Your task to perform on an android device: find which apps use the phone's location Image 0: 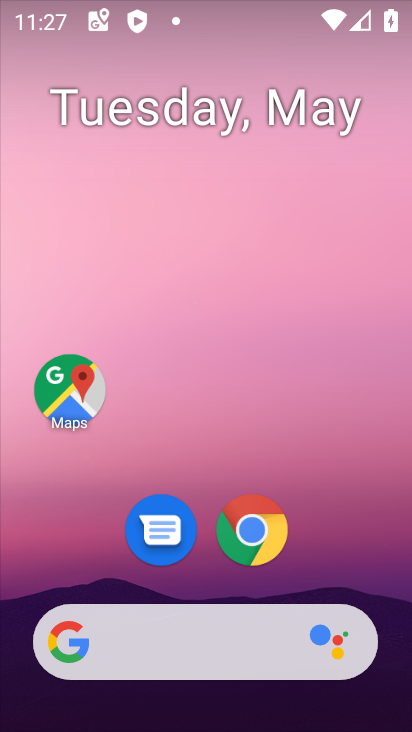
Step 0: drag from (208, 438) to (245, 173)
Your task to perform on an android device: find which apps use the phone's location Image 1: 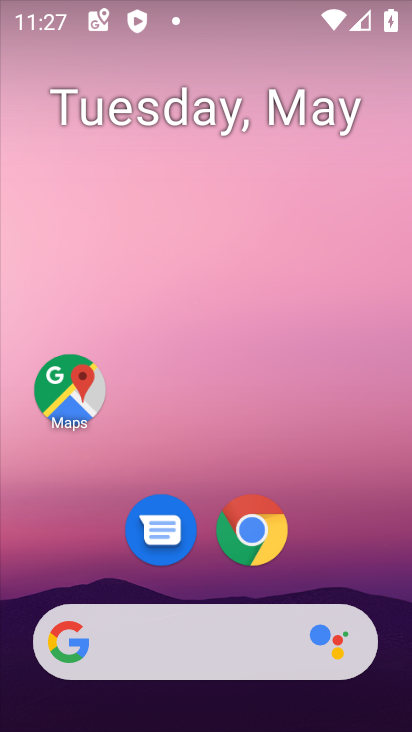
Step 1: drag from (211, 589) to (214, 129)
Your task to perform on an android device: find which apps use the phone's location Image 2: 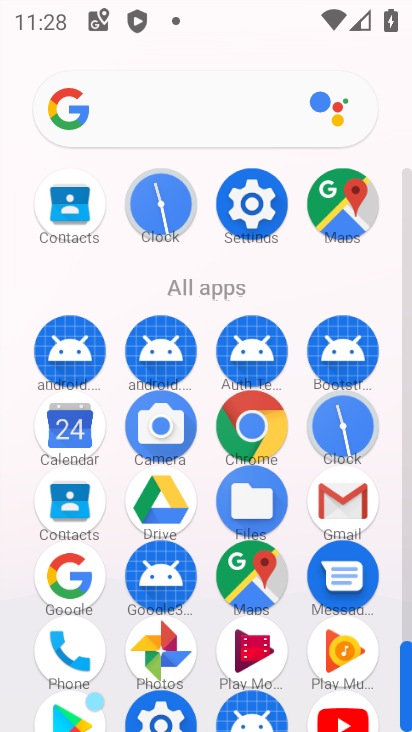
Step 2: click (254, 200)
Your task to perform on an android device: find which apps use the phone's location Image 3: 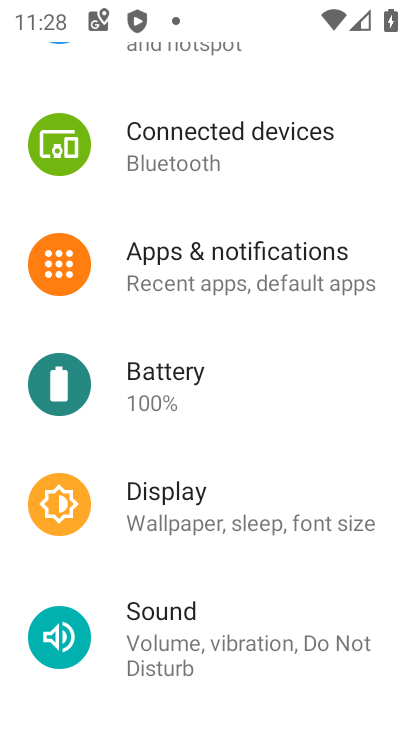
Step 3: drag from (223, 210) to (258, 120)
Your task to perform on an android device: find which apps use the phone's location Image 4: 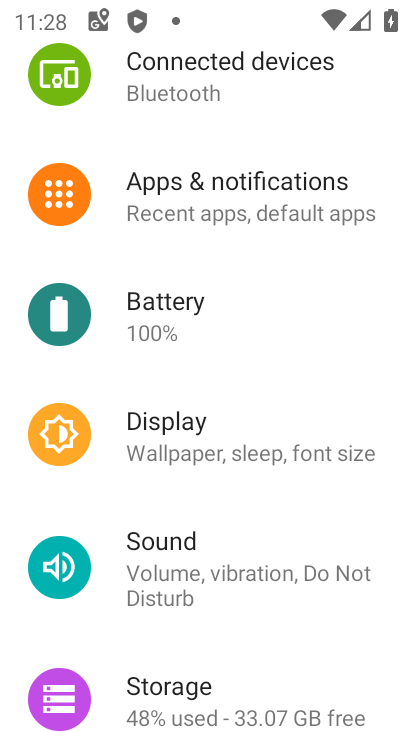
Step 4: drag from (222, 620) to (352, 226)
Your task to perform on an android device: find which apps use the phone's location Image 5: 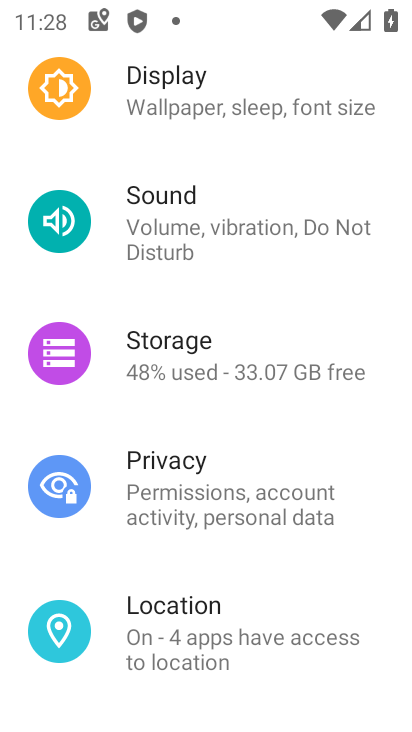
Step 5: click (180, 621)
Your task to perform on an android device: find which apps use the phone's location Image 6: 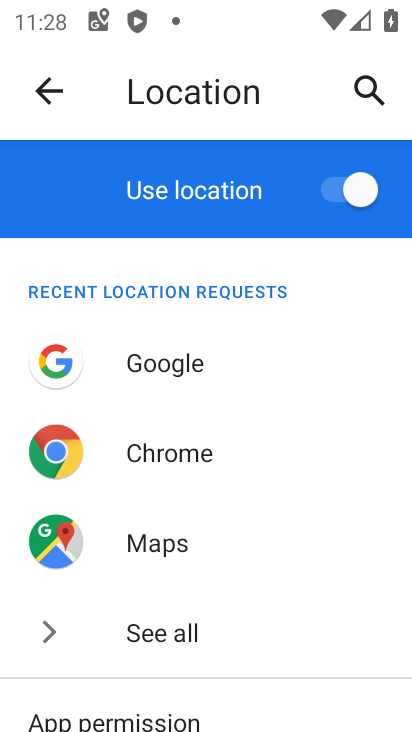
Step 6: task complete